Your task to perform on an android device: Search for seafood restaurants on Google Maps Image 0: 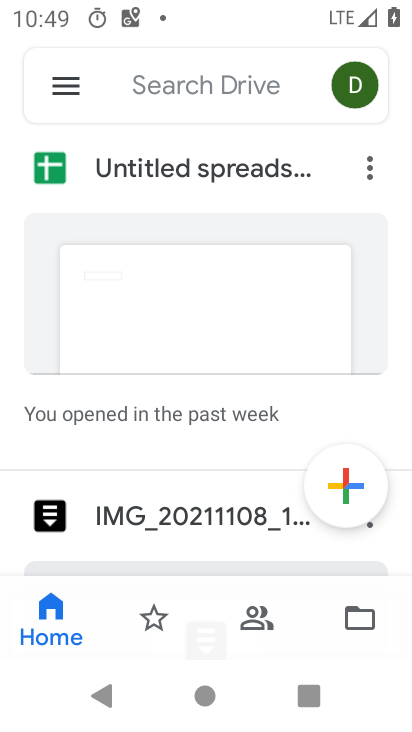
Step 0: press home button
Your task to perform on an android device: Search for seafood restaurants on Google Maps Image 1: 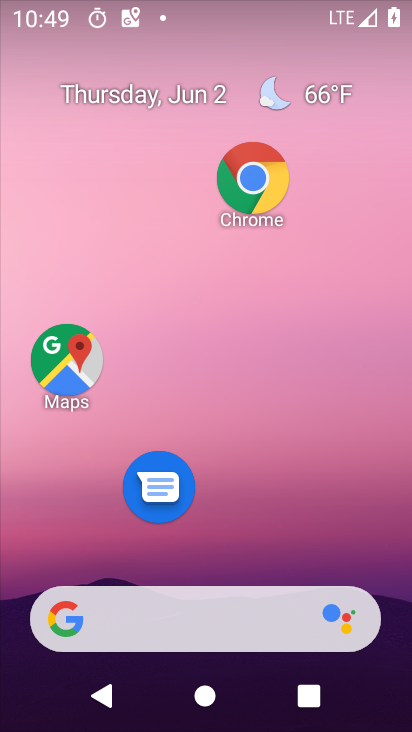
Step 1: click (54, 360)
Your task to perform on an android device: Search for seafood restaurants on Google Maps Image 2: 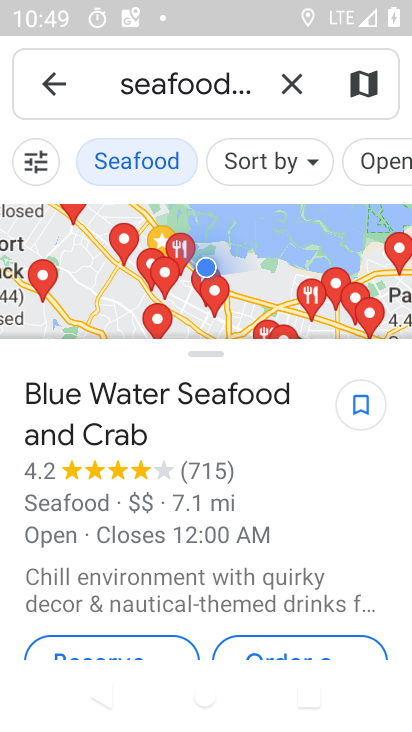
Step 2: task complete